Your task to perform on an android device: Open calendar and show me the first week of next month Image 0: 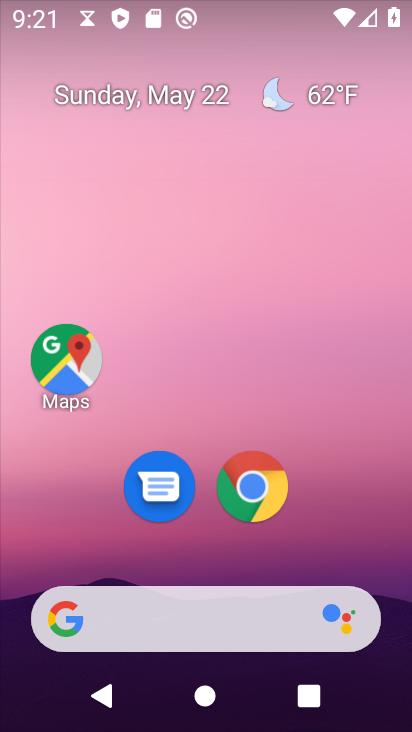
Step 0: drag from (5, 269) to (401, 270)
Your task to perform on an android device: Open calendar and show me the first week of next month Image 1: 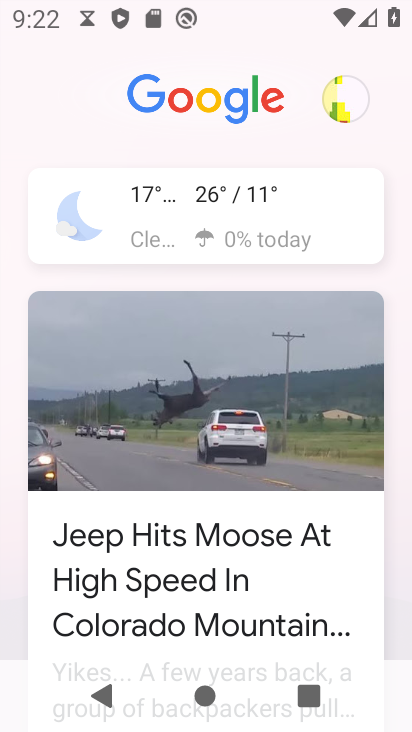
Step 1: drag from (240, 610) to (273, 422)
Your task to perform on an android device: Open calendar and show me the first week of next month Image 2: 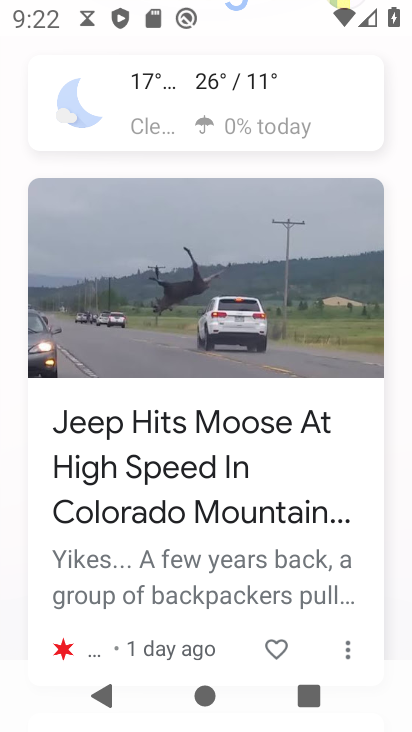
Step 2: click (275, 400)
Your task to perform on an android device: Open calendar and show me the first week of next month Image 3: 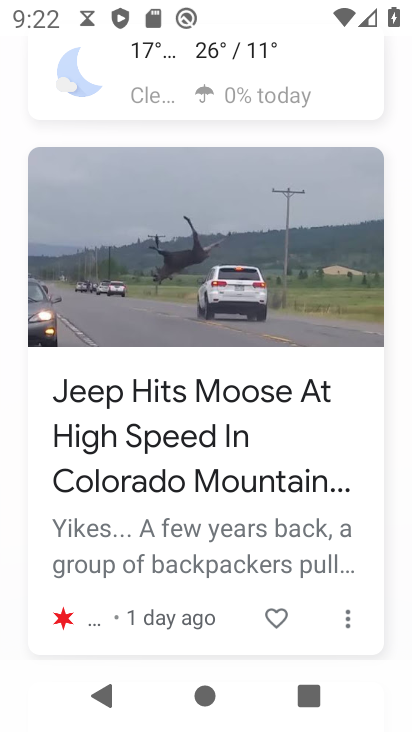
Step 3: click (280, 341)
Your task to perform on an android device: Open calendar and show me the first week of next month Image 4: 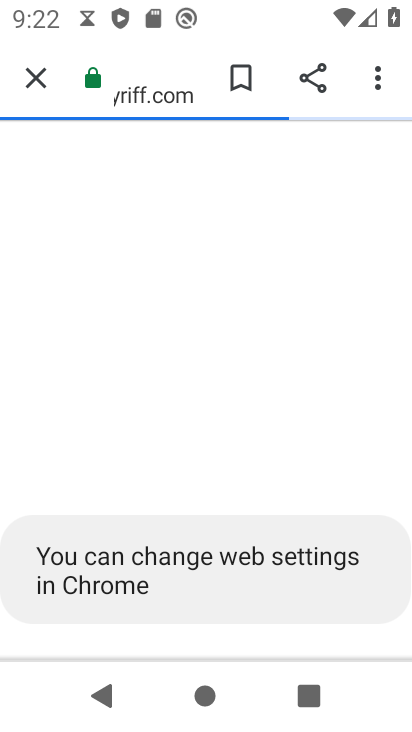
Step 4: click (40, 84)
Your task to perform on an android device: Open calendar and show me the first week of next month Image 5: 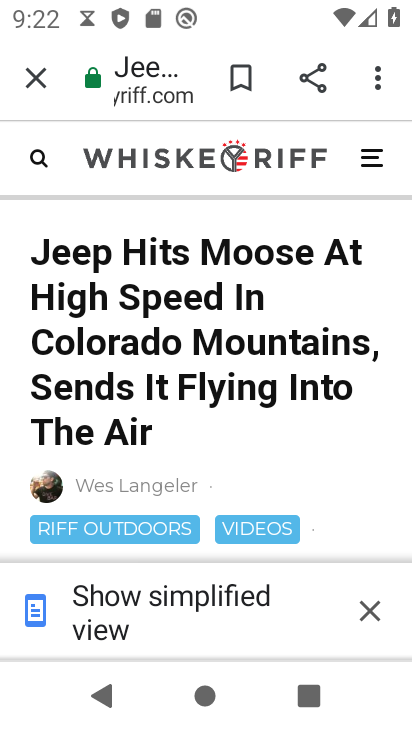
Step 5: click (37, 71)
Your task to perform on an android device: Open calendar and show me the first week of next month Image 6: 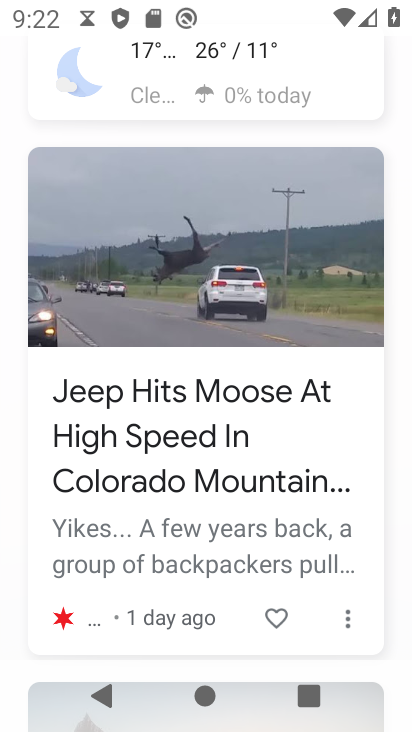
Step 6: task complete